Your task to perform on an android device: toggle wifi Image 0: 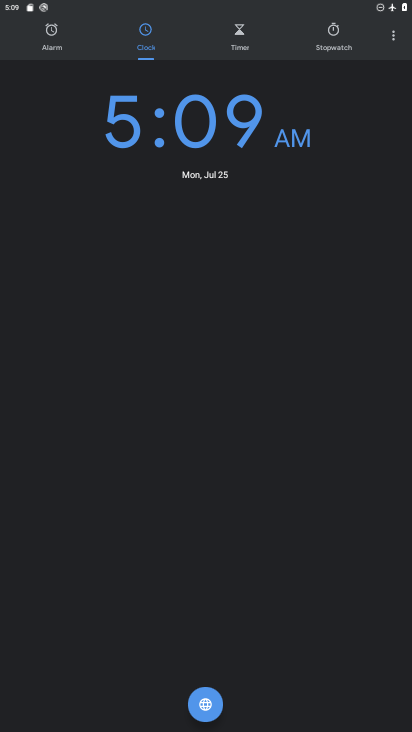
Step 0: press home button
Your task to perform on an android device: toggle wifi Image 1: 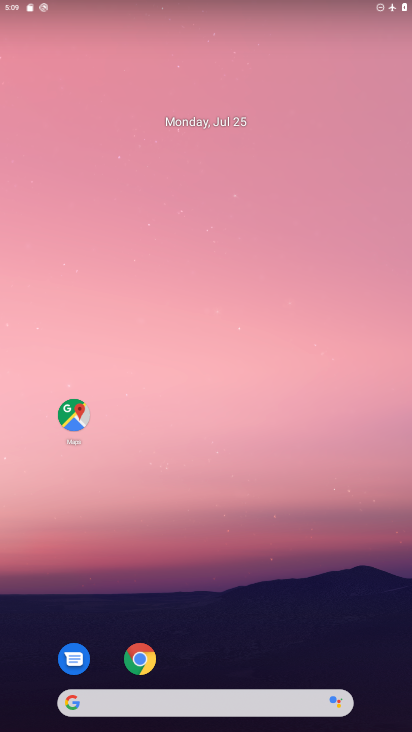
Step 1: drag from (248, 630) to (205, 33)
Your task to perform on an android device: toggle wifi Image 2: 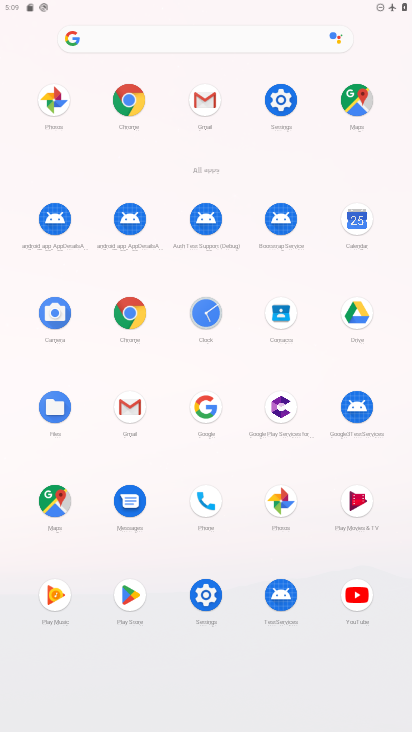
Step 2: click (285, 110)
Your task to perform on an android device: toggle wifi Image 3: 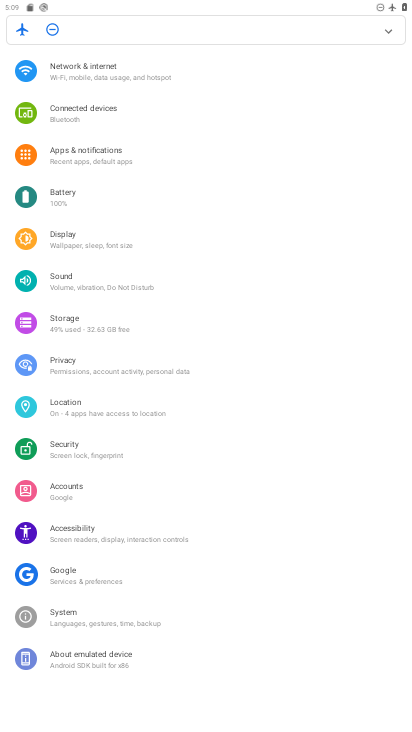
Step 3: click (222, 79)
Your task to perform on an android device: toggle wifi Image 4: 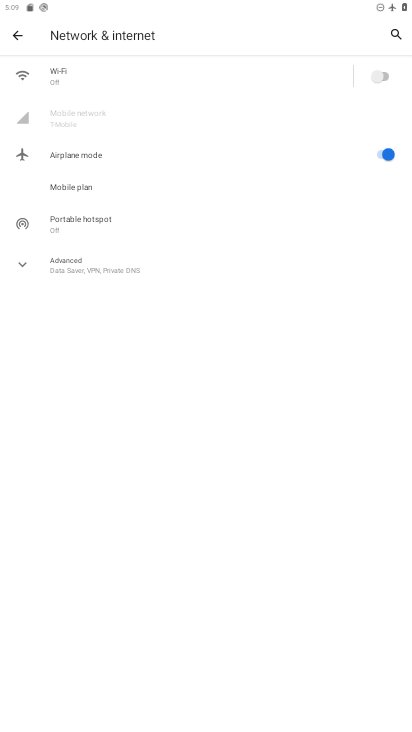
Step 4: click (374, 79)
Your task to perform on an android device: toggle wifi Image 5: 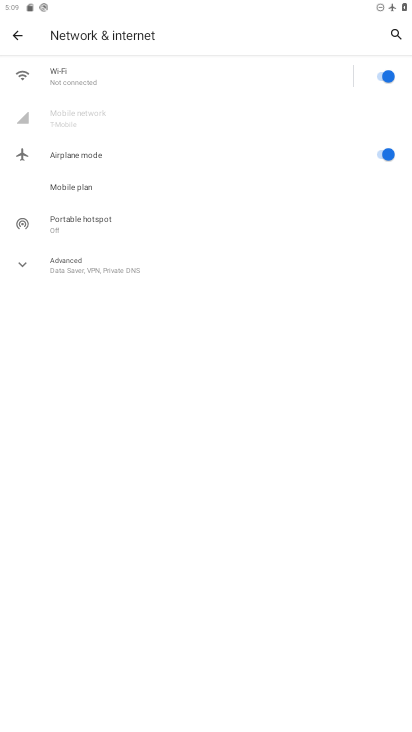
Step 5: task complete